Your task to perform on an android device: install app "Yahoo Mail" Image 0: 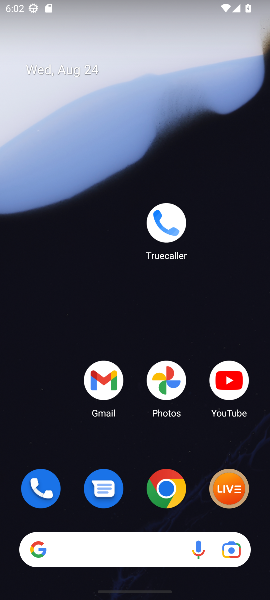
Step 0: press home button
Your task to perform on an android device: install app "Yahoo Mail" Image 1: 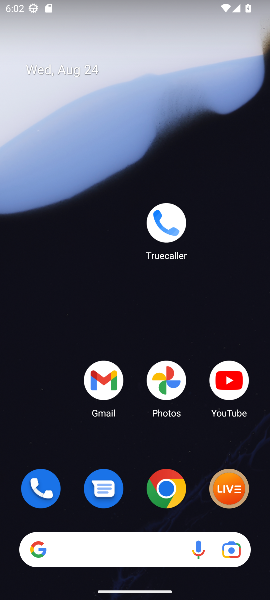
Step 1: drag from (127, 518) to (126, 153)
Your task to perform on an android device: install app "Yahoo Mail" Image 2: 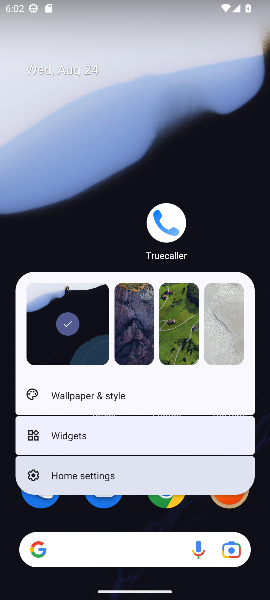
Step 2: click (140, 132)
Your task to perform on an android device: install app "Yahoo Mail" Image 3: 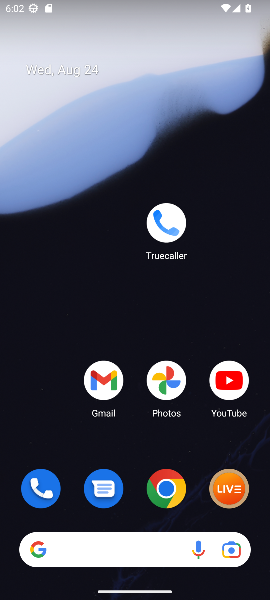
Step 3: drag from (139, 516) to (147, 84)
Your task to perform on an android device: install app "Yahoo Mail" Image 4: 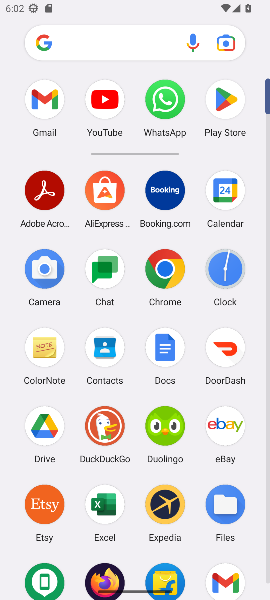
Step 4: click (213, 114)
Your task to perform on an android device: install app "Yahoo Mail" Image 5: 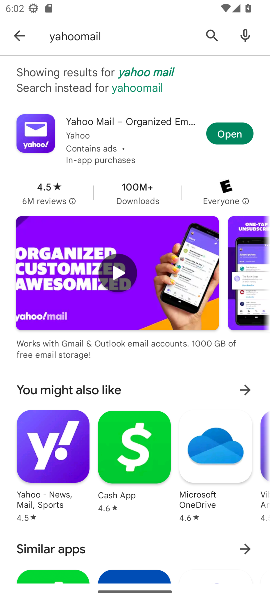
Step 5: click (206, 40)
Your task to perform on an android device: install app "Yahoo Mail" Image 6: 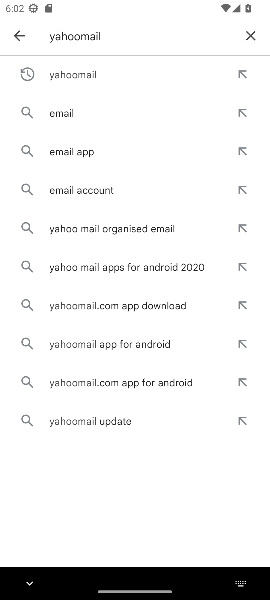
Step 6: click (254, 39)
Your task to perform on an android device: install app "Yahoo Mail" Image 7: 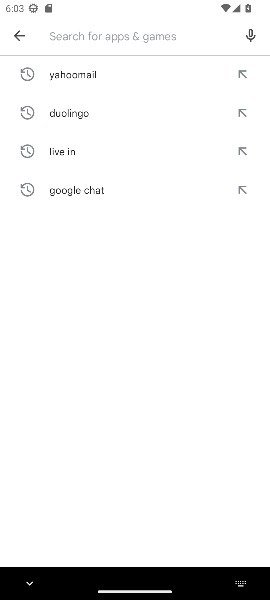
Step 7: type "yahoomail"
Your task to perform on an android device: install app "Yahoo Mail" Image 8: 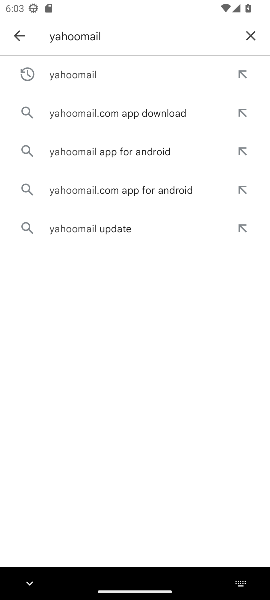
Step 8: click (89, 72)
Your task to perform on an android device: install app "Yahoo Mail" Image 9: 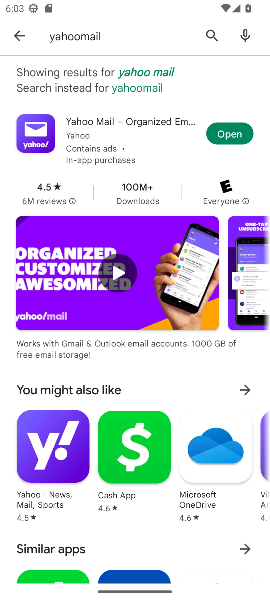
Step 9: click (242, 136)
Your task to perform on an android device: install app "Yahoo Mail" Image 10: 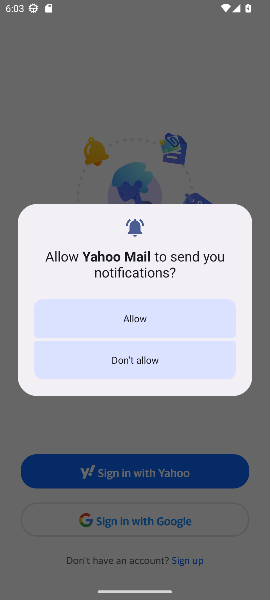
Step 10: task complete